Your task to perform on an android device: turn off priority inbox in the gmail app Image 0: 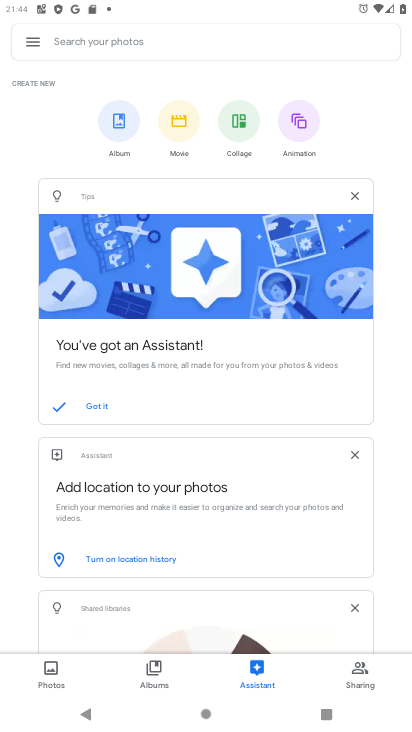
Step 0: press home button
Your task to perform on an android device: turn off priority inbox in the gmail app Image 1: 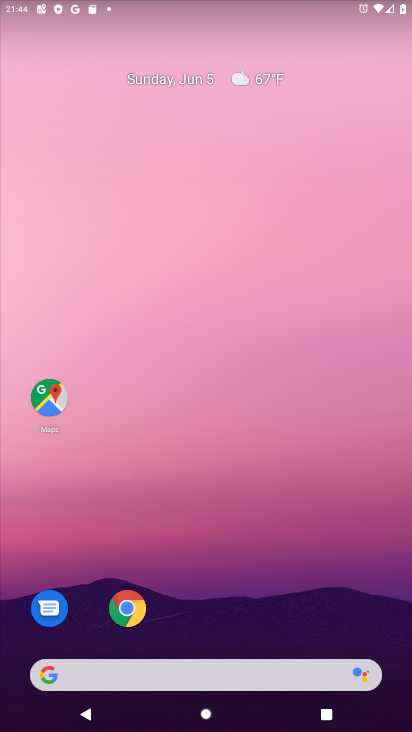
Step 1: drag from (65, 433) to (235, 151)
Your task to perform on an android device: turn off priority inbox in the gmail app Image 2: 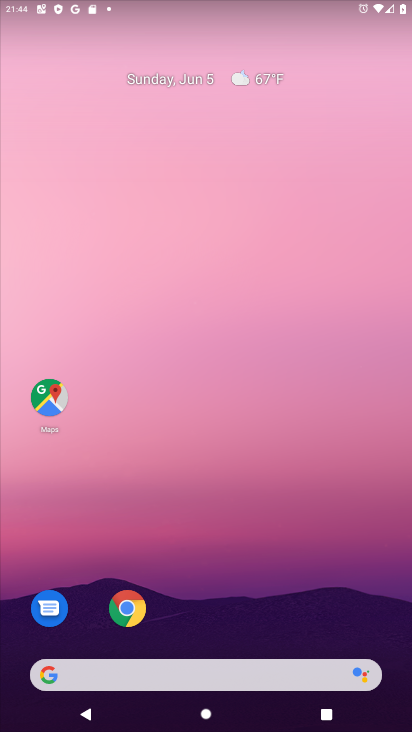
Step 2: drag from (1, 615) to (268, 23)
Your task to perform on an android device: turn off priority inbox in the gmail app Image 3: 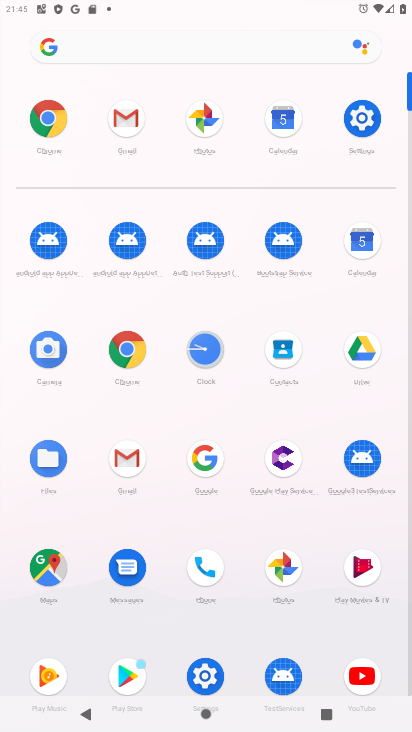
Step 3: click (133, 469)
Your task to perform on an android device: turn off priority inbox in the gmail app Image 4: 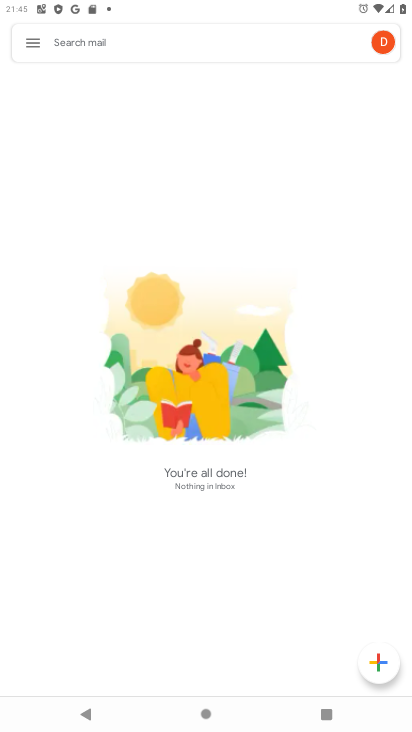
Step 4: click (29, 46)
Your task to perform on an android device: turn off priority inbox in the gmail app Image 5: 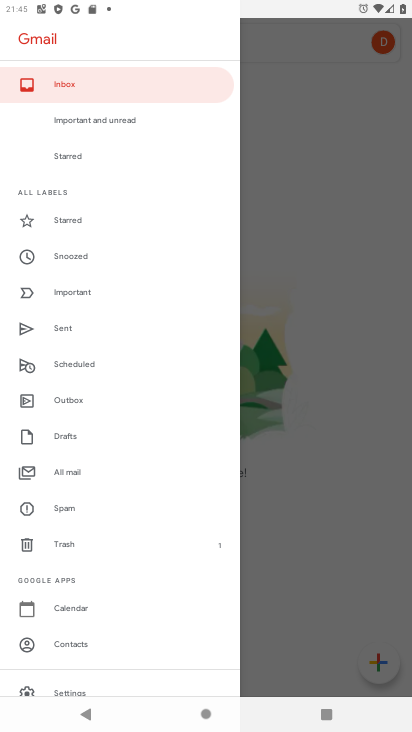
Step 5: drag from (4, 579) to (168, 200)
Your task to perform on an android device: turn off priority inbox in the gmail app Image 6: 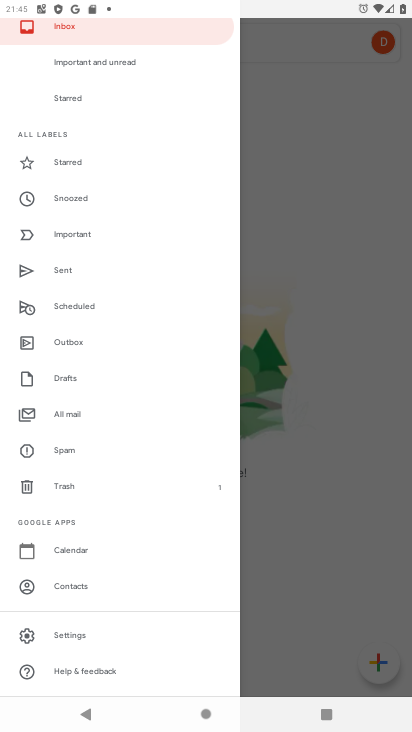
Step 6: click (85, 637)
Your task to perform on an android device: turn off priority inbox in the gmail app Image 7: 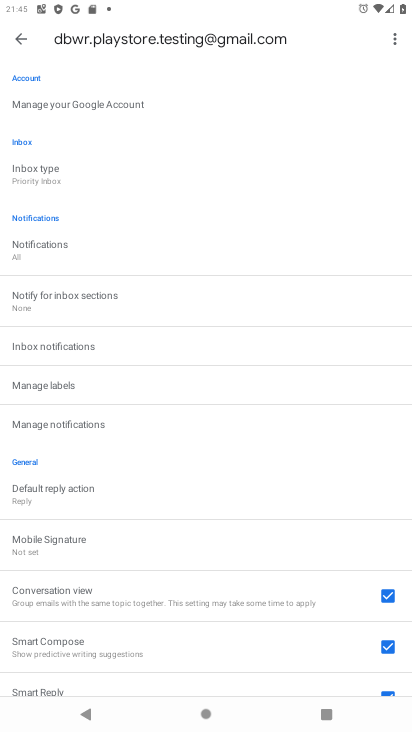
Step 7: drag from (67, 447) to (277, 62)
Your task to perform on an android device: turn off priority inbox in the gmail app Image 8: 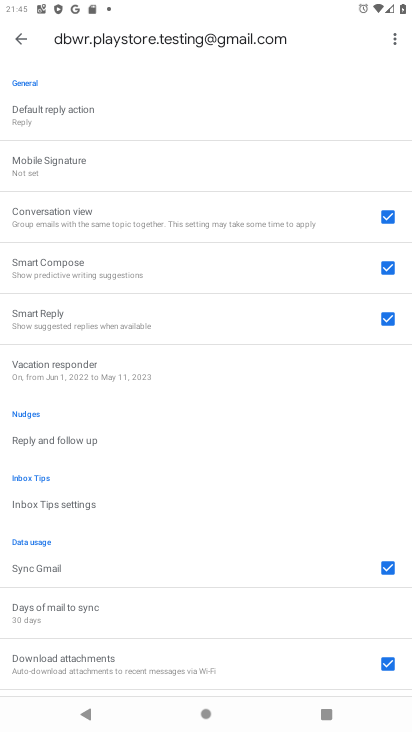
Step 8: drag from (270, 206) to (181, 604)
Your task to perform on an android device: turn off priority inbox in the gmail app Image 9: 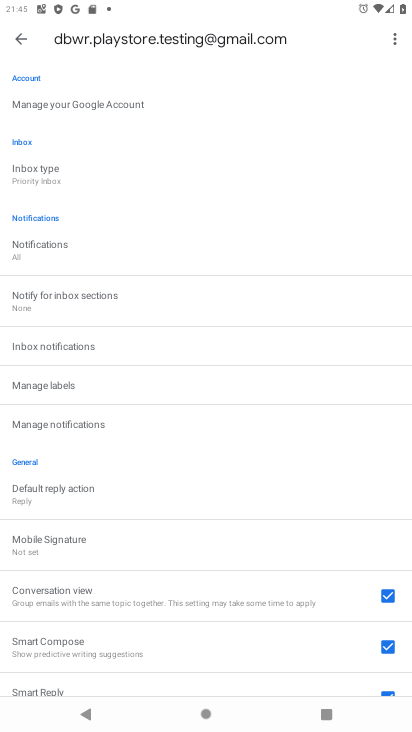
Step 9: drag from (233, 184) to (149, 587)
Your task to perform on an android device: turn off priority inbox in the gmail app Image 10: 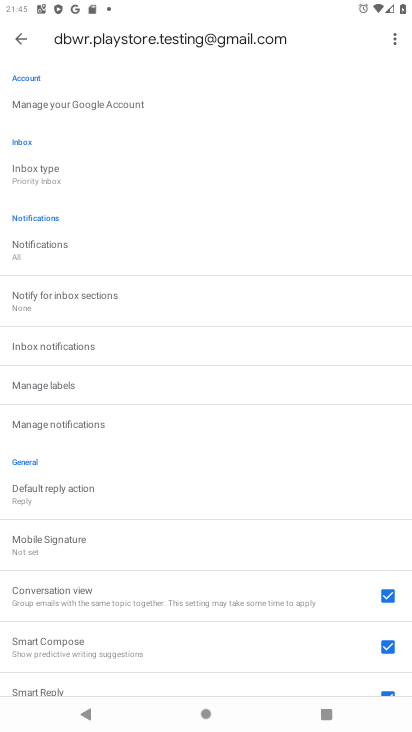
Step 10: click (172, 169)
Your task to perform on an android device: turn off priority inbox in the gmail app Image 11: 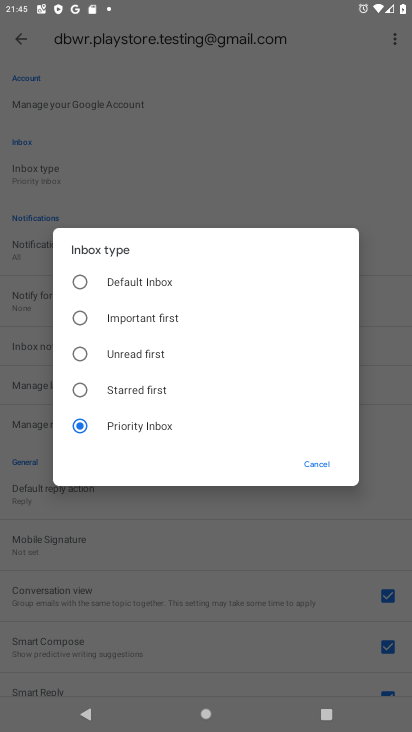
Step 11: click (153, 274)
Your task to perform on an android device: turn off priority inbox in the gmail app Image 12: 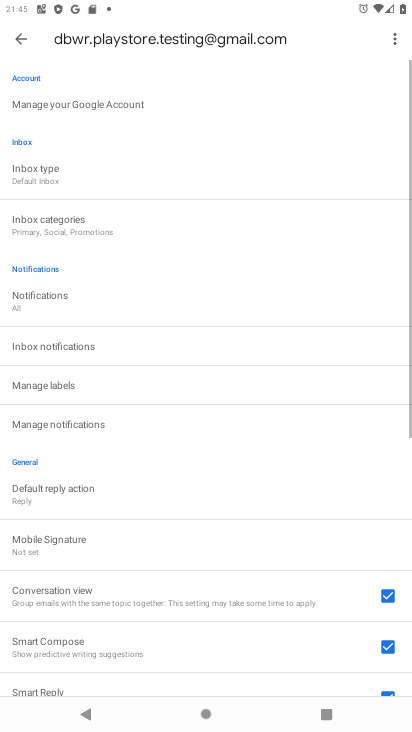
Step 12: task complete